Your task to perform on an android device: Open accessibility settings Image 0: 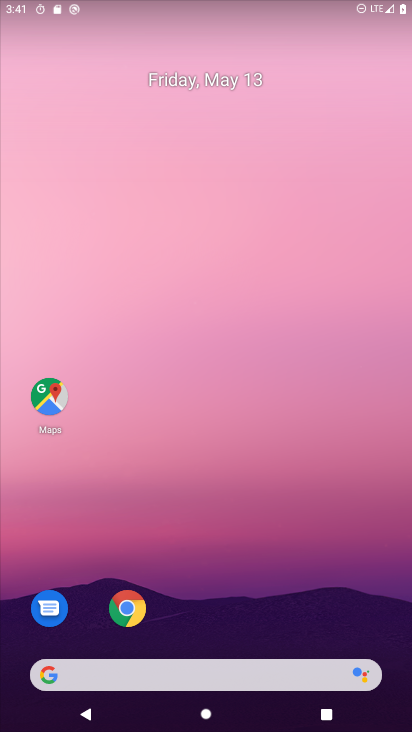
Step 0: drag from (270, 602) to (286, 90)
Your task to perform on an android device: Open accessibility settings Image 1: 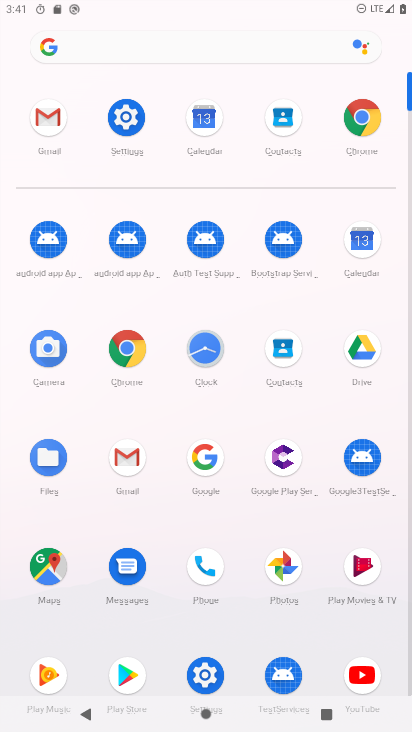
Step 1: click (204, 663)
Your task to perform on an android device: Open accessibility settings Image 2: 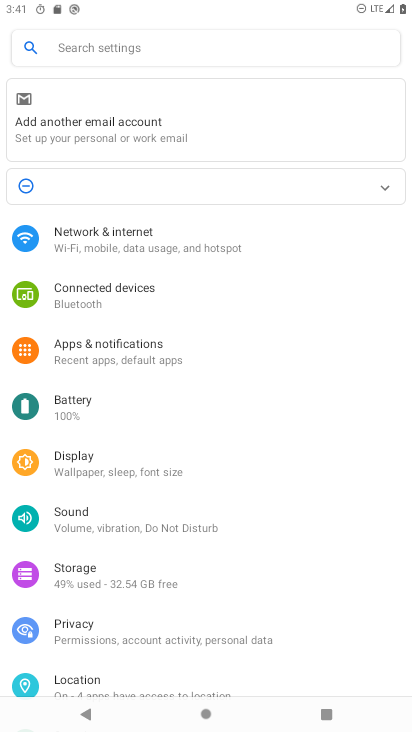
Step 2: drag from (260, 587) to (266, 190)
Your task to perform on an android device: Open accessibility settings Image 3: 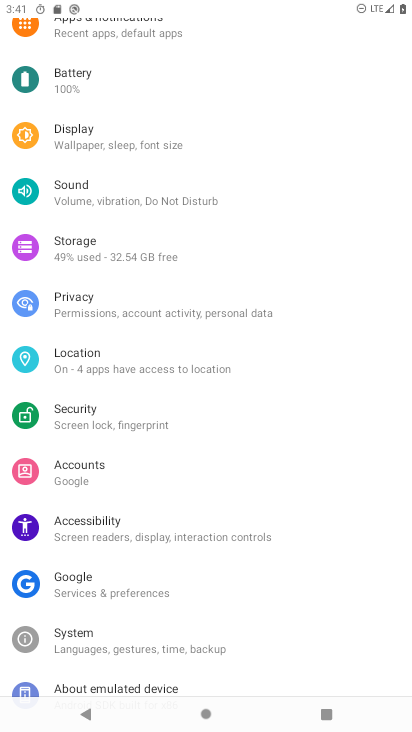
Step 3: click (109, 527)
Your task to perform on an android device: Open accessibility settings Image 4: 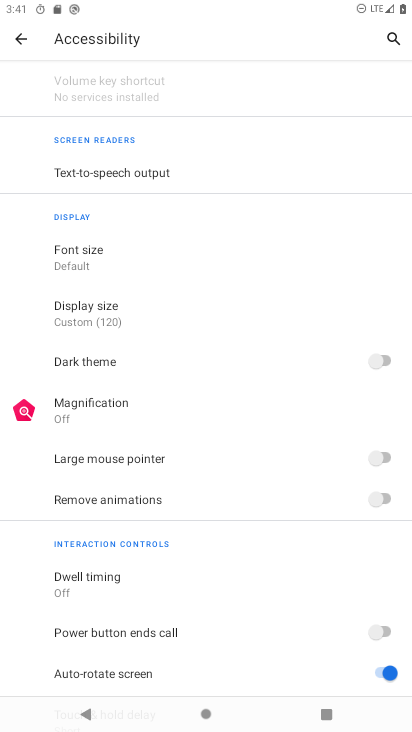
Step 4: task complete